Your task to perform on an android device: change text size in settings app Image 0: 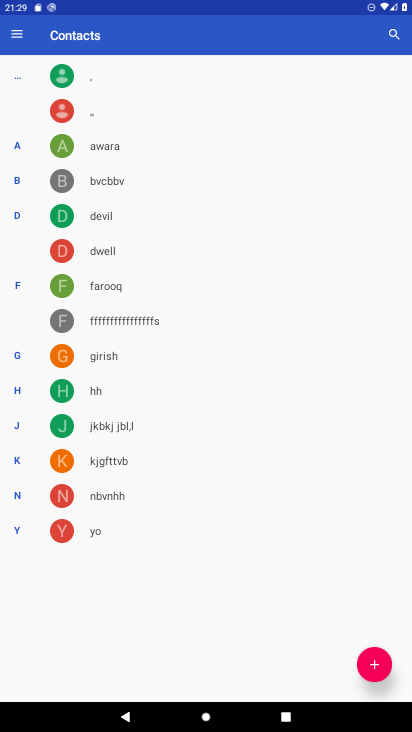
Step 0: press home button
Your task to perform on an android device: change text size in settings app Image 1: 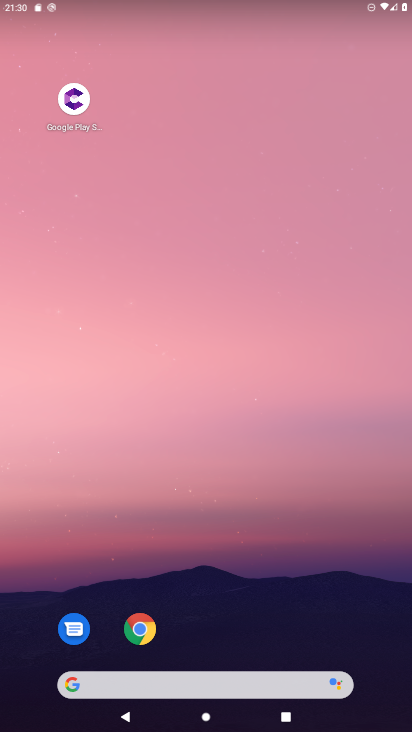
Step 1: drag from (260, 590) to (219, 106)
Your task to perform on an android device: change text size in settings app Image 2: 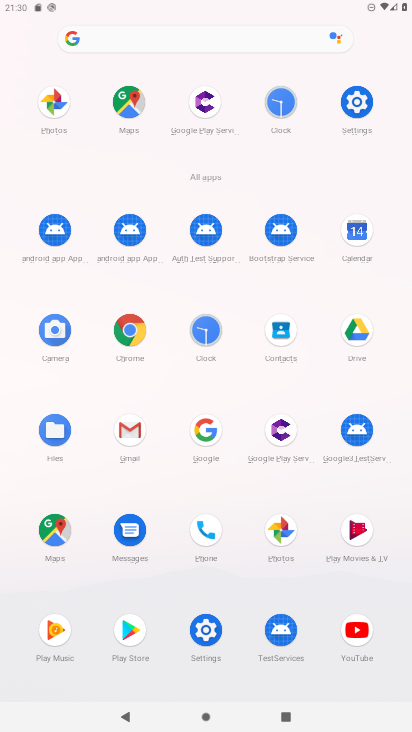
Step 2: click (349, 101)
Your task to perform on an android device: change text size in settings app Image 3: 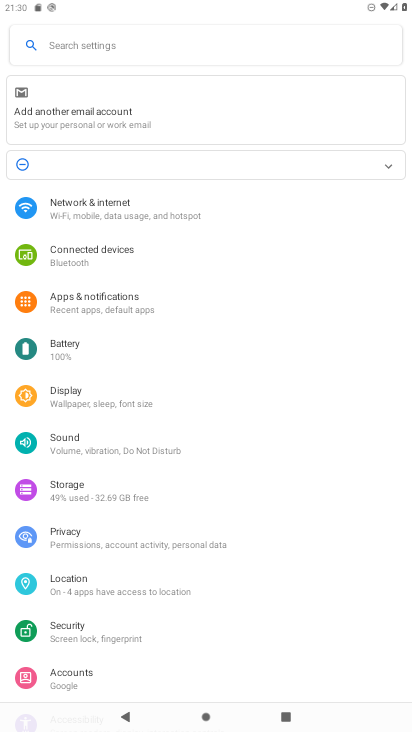
Step 3: drag from (99, 631) to (152, 246)
Your task to perform on an android device: change text size in settings app Image 4: 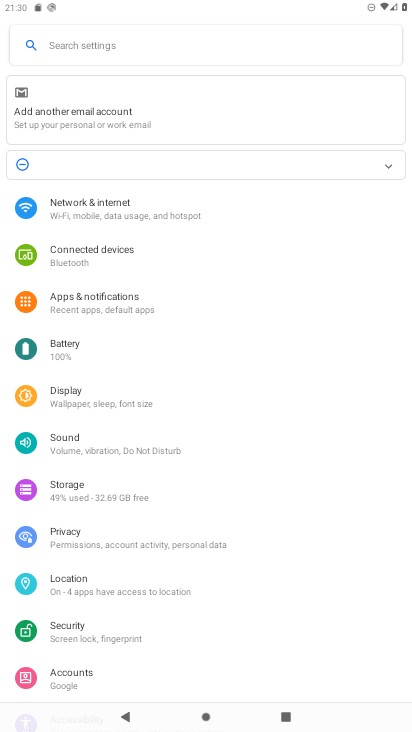
Step 4: drag from (142, 658) to (150, 337)
Your task to perform on an android device: change text size in settings app Image 5: 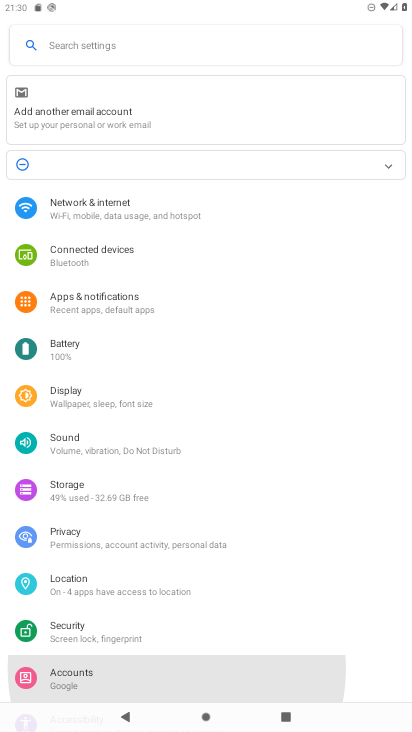
Step 5: drag from (156, 584) to (203, 383)
Your task to perform on an android device: change text size in settings app Image 6: 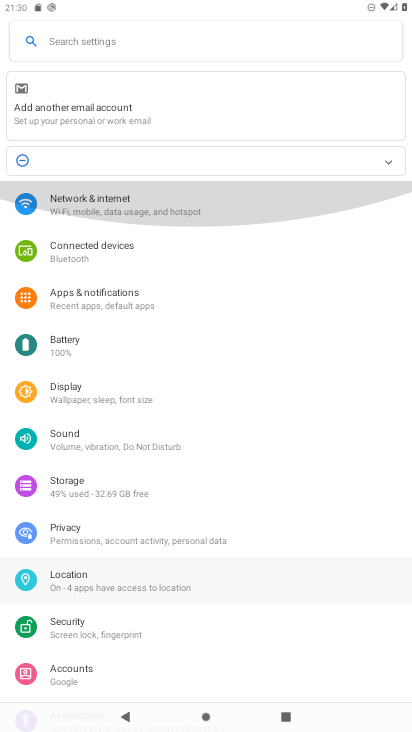
Step 6: drag from (207, 491) to (221, 319)
Your task to perform on an android device: change text size in settings app Image 7: 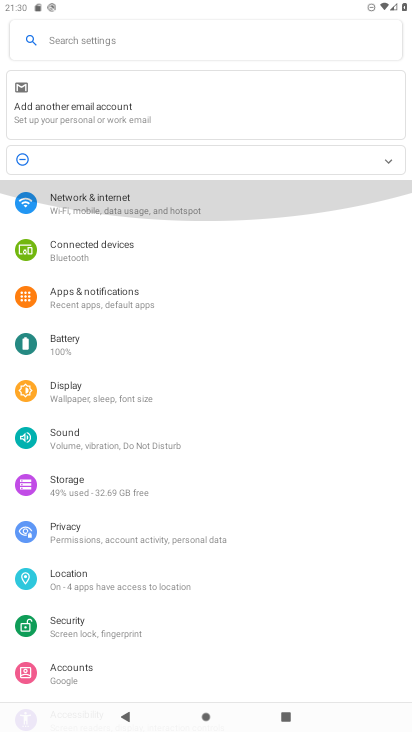
Step 7: drag from (202, 469) to (207, 233)
Your task to perform on an android device: change text size in settings app Image 8: 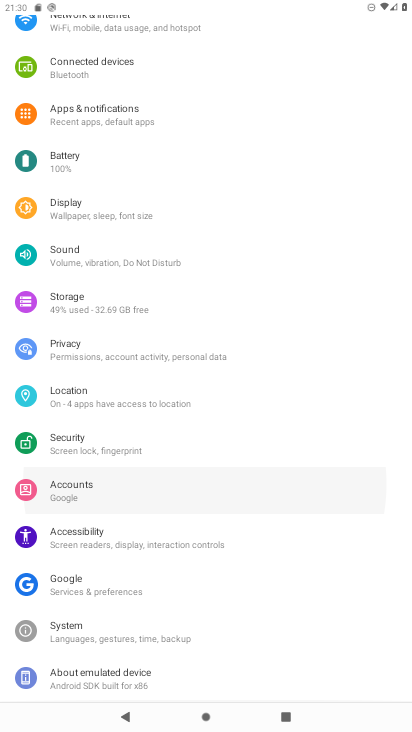
Step 8: drag from (189, 472) to (212, 298)
Your task to perform on an android device: change text size in settings app Image 9: 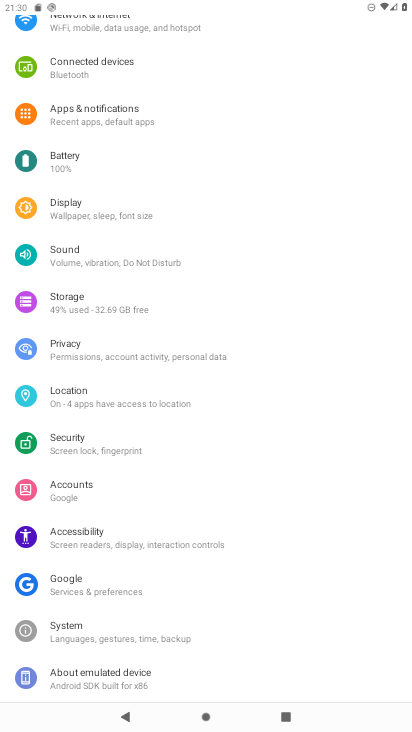
Step 9: click (125, 537)
Your task to perform on an android device: change text size in settings app Image 10: 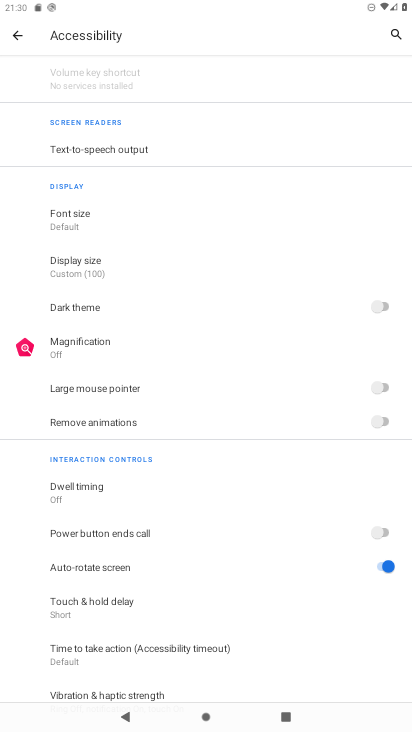
Step 10: click (76, 221)
Your task to perform on an android device: change text size in settings app Image 11: 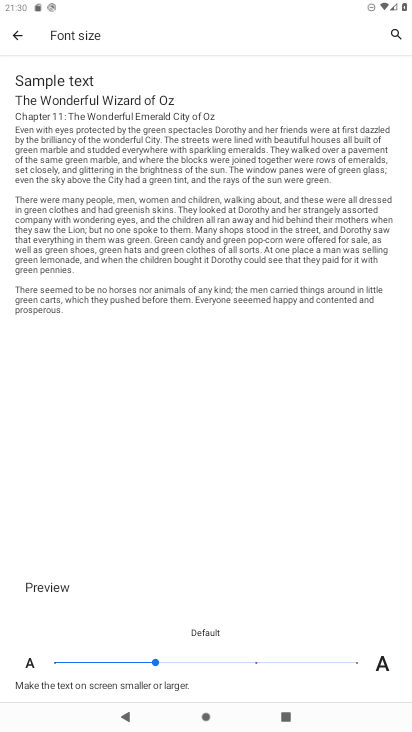
Step 11: click (237, 669)
Your task to perform on an android device: change text size in settings app Image 12: 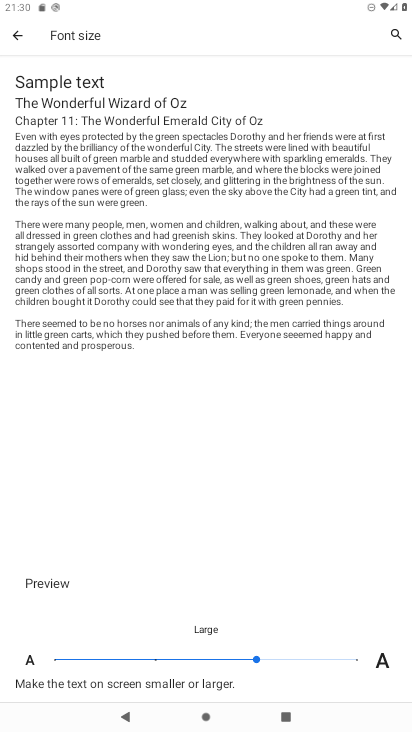
Step 12: task complete